Your task to perform on an android device: visit the assistant section in the google photos Image 0: 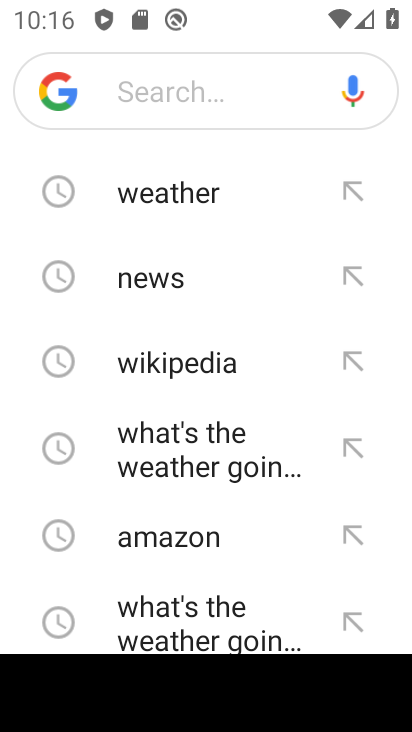
Step 0: press home button
Your task to perform on an android device: visit the assistant section in the google photos Image 1: 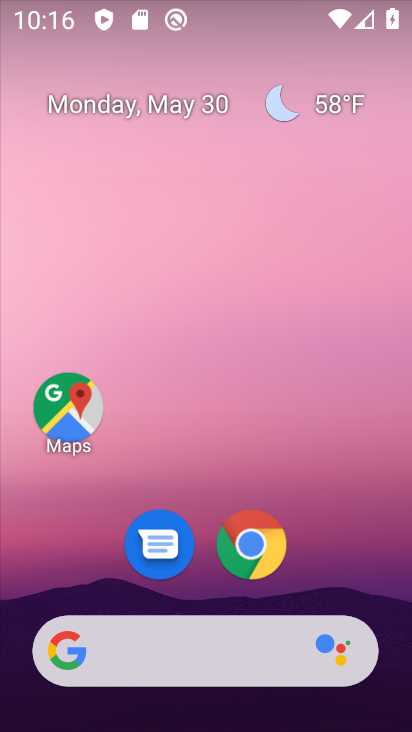
Step 1: drag from (373, 567) to (287, 84)
Your task to perform on an android device: visit the assistant section in the google photos Image 2: 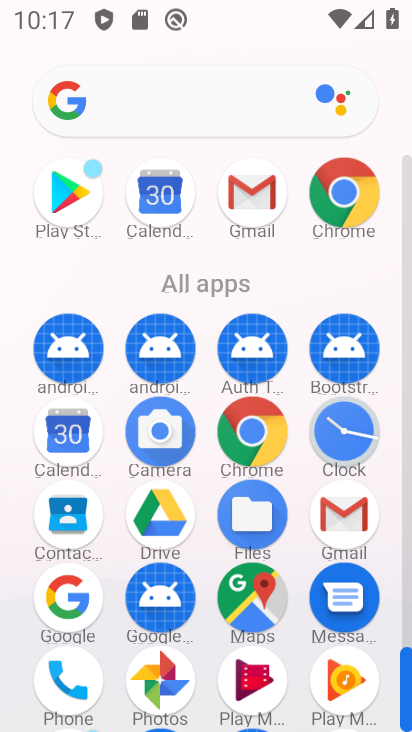
Step 2: click (161, 670)
Your task to perform on an android device: visit the assistant section in the google photos Image 3: 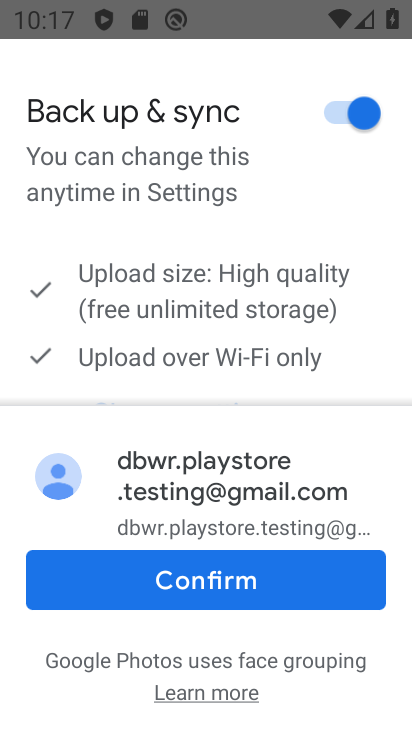
Step 3: task complete